Your task to perform on an android device: Open calendar and show me the first week of next month Image 0: 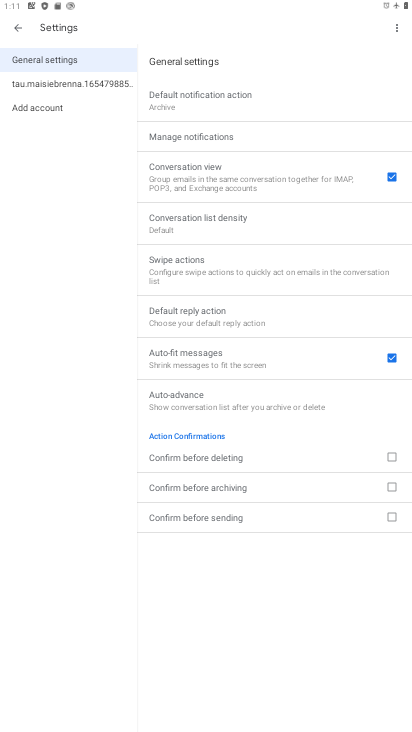
Step 0: press home button
Your task to perform on an android device: Open calendar and show me the first week of next month Image 1: 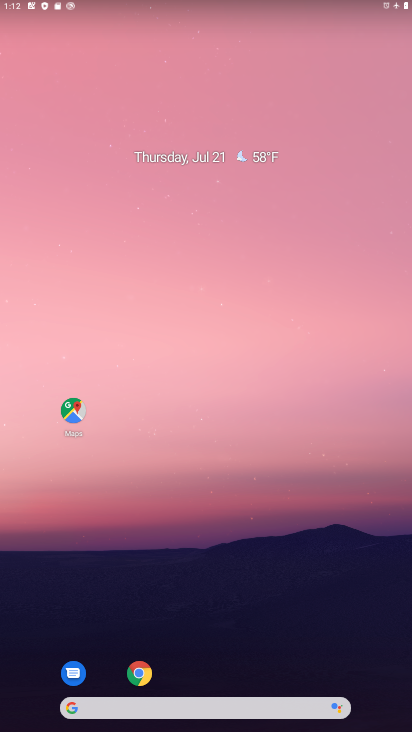
Step 1: drag from (201, 664) to (176, 116)
Your task to perform on an android device: Open calendar and show me the first week of next month Image 2: 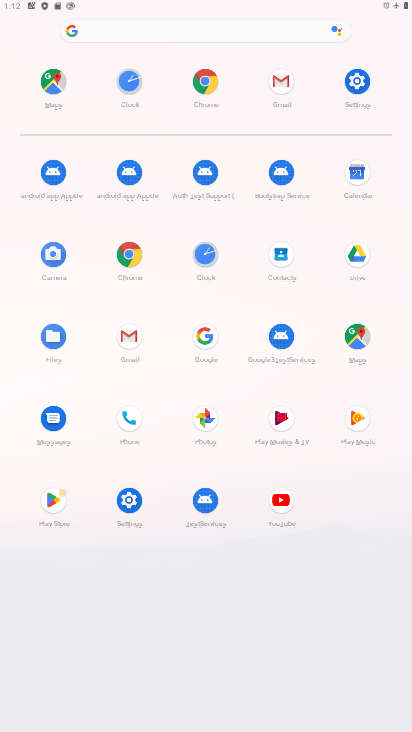
Step 2: click (360, 163)
Your task to perform on an android device: Open calendar and show me the first week of next month Image 3: 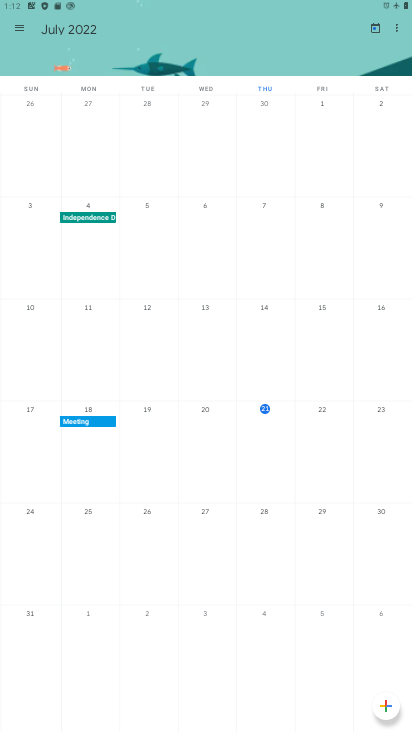
Step 3: task complete